Your task to perform on an android device: Open network settings Image 0: 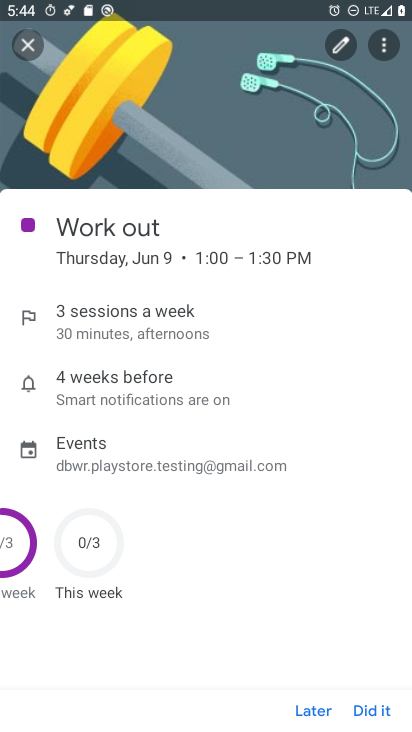
Step 0: press home button
Your task to perform on an android device: Open network settings Image 1: 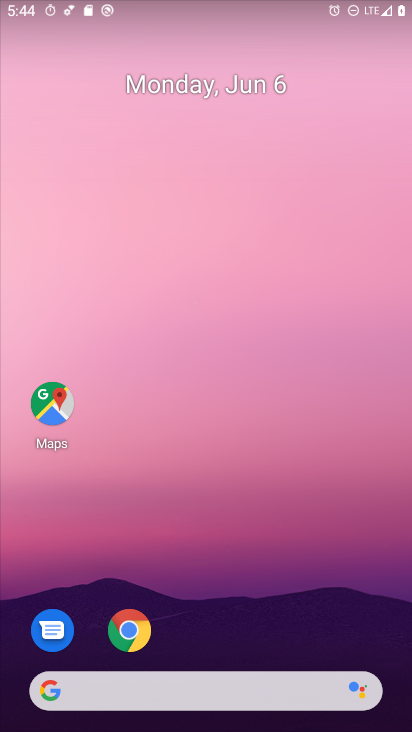
Step 1: drag from (325, 602) to (225, 33)
Your task to perform on an android device: Open network settings Image 2: 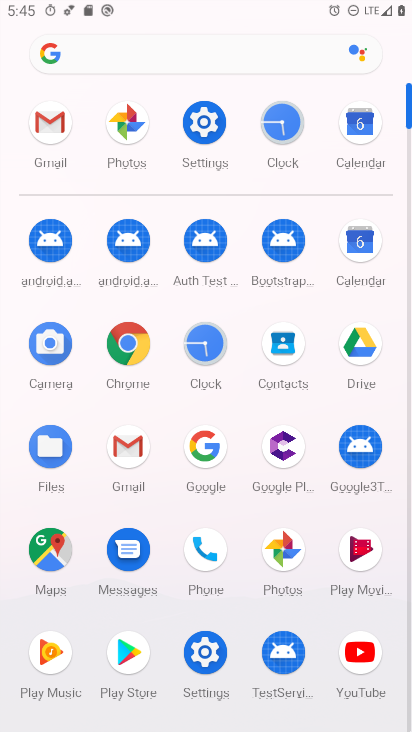
Step 2: click (204, 126)
Your task to perform on an android device: Open network settings Image 3: 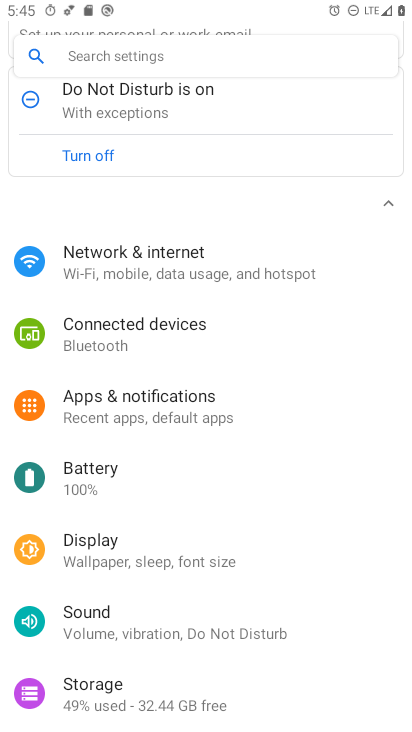
Step 3: click (193, 263)
Your task to perform on an android device: Open network settings Image 4: 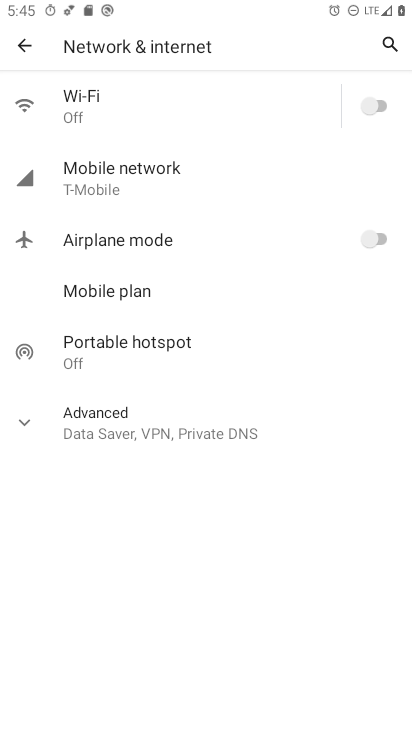
Step 4: task complete